Your task to perform on an android device: Open Maps and search for coffee Image 0: 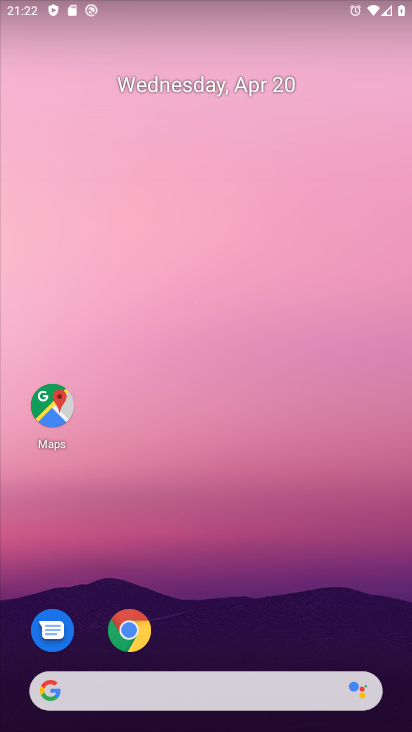
Step 0: click (50, 408)
Your task to perform on an android device: Open Maps and search for coffee Image 1: 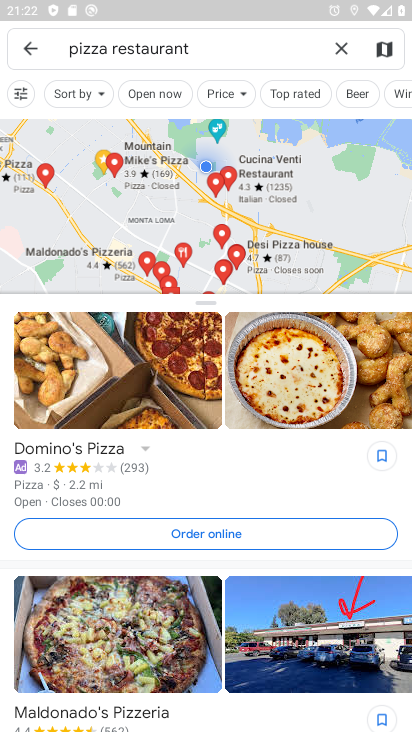
Step 1: click (341, 44)
Your task to perform on an android device: Open Maps and search for coffee Image 2: 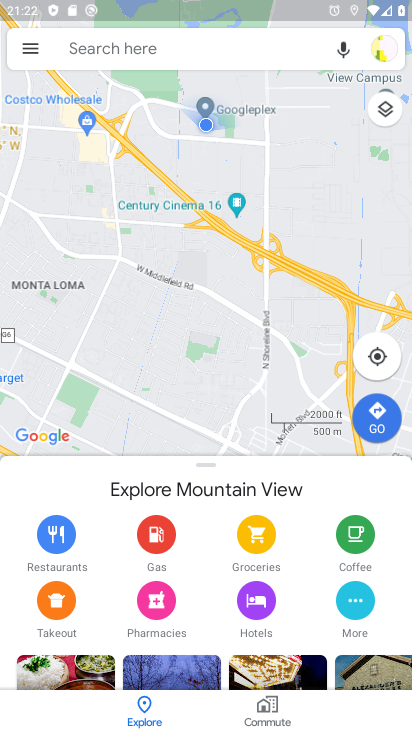
Step 2: click (210, 47)
Your task to perform on an android device: Open Maps and search for coffee Image 3: 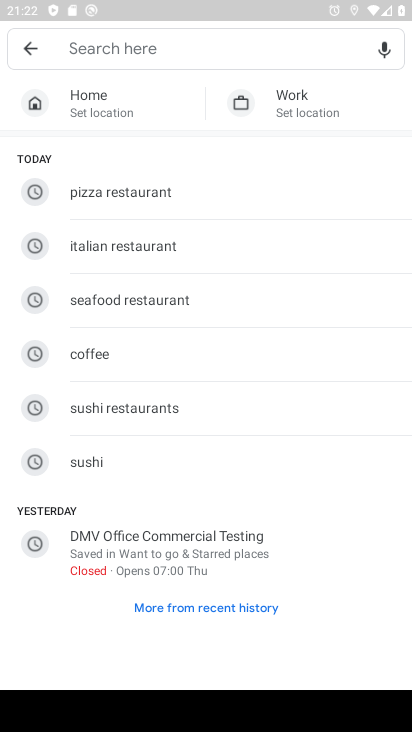
Step 3: click (118, 345)
Your task to perform on an android device: Open Maps and search for coffee Image 4: 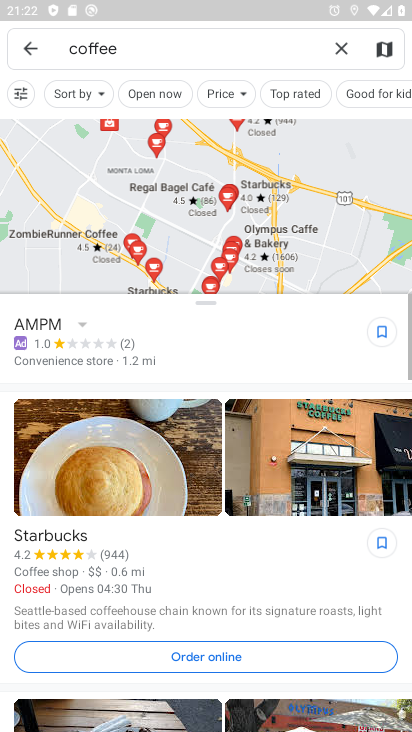
Step 4: task complete